Your task to perform on an android device: turn off notifications settings in the gmail app Image 0: 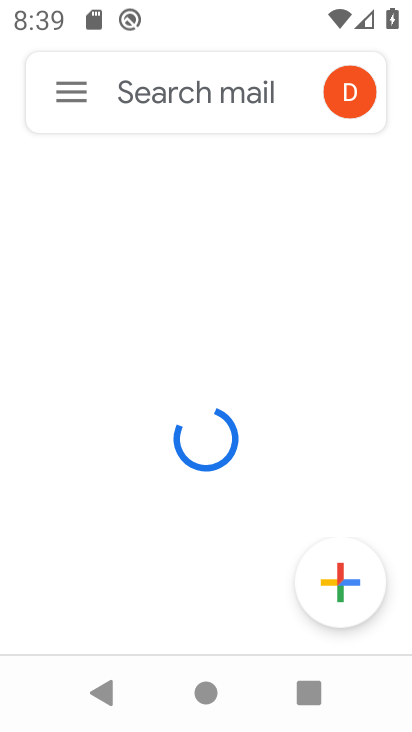
Step 0: press home button
Your task to perform on an android device: turn off notifications settings in the gmail app Image 1: 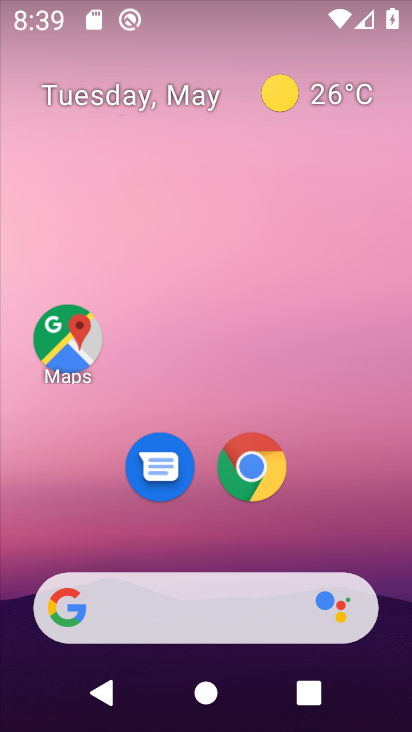
Step 1: drag from (393, 632) to (377, 220)
Your task to perform on an android device: turn off notifications settings in the gmail app Image 2: 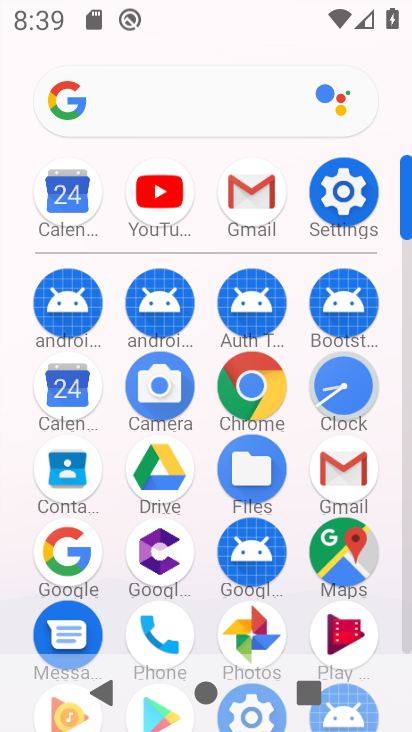
Step 2: click (334, 479)
Your task to perform on an android device: turn off notifications settings in the gmail app Image 3: 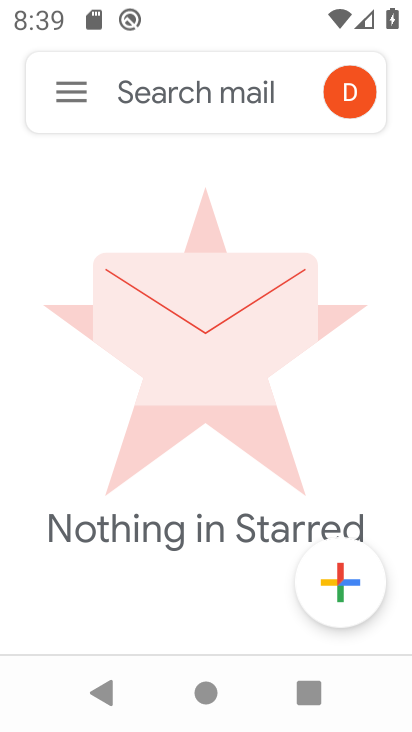
Step 3: click (57, 88)
Your task to perform on an android device: turn off notifications settings in the gmail app Image 4: 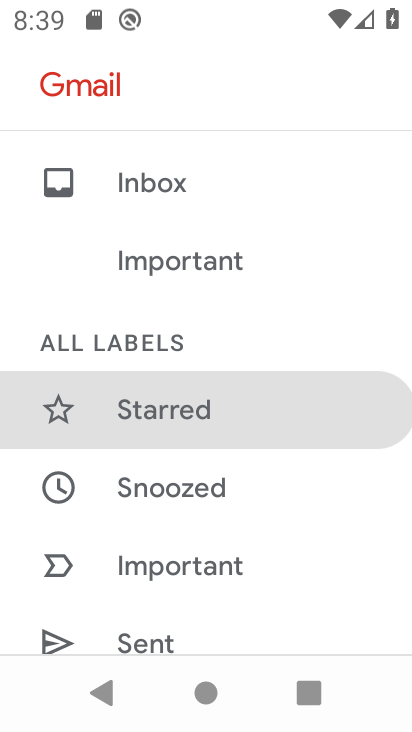
Step 4: drag from (289, 617) to (328, 331)
Your task to perform on an android device: turn off notifications settings in the gmail app Image 5: 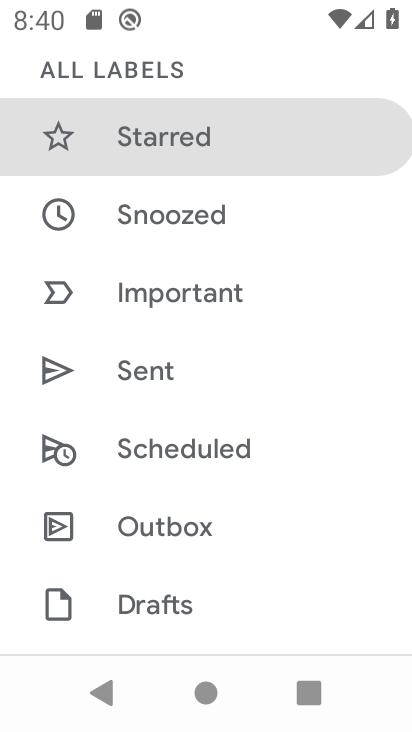
Step 5: drag from (389, 591) to (305, 248)
Your task to perform on an android device: turn off notifications settings in the gmail app Image 6: 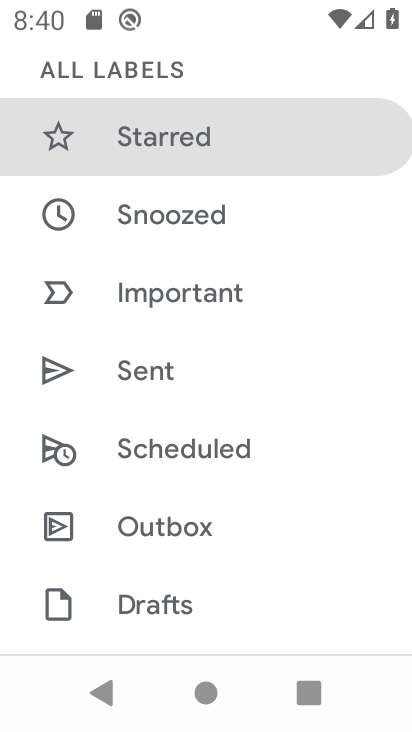
Step 6: drag from (274, 577) to (305, 261)
Your task to perform on an android device: turn off notifications settings in the gmail app Image 7: 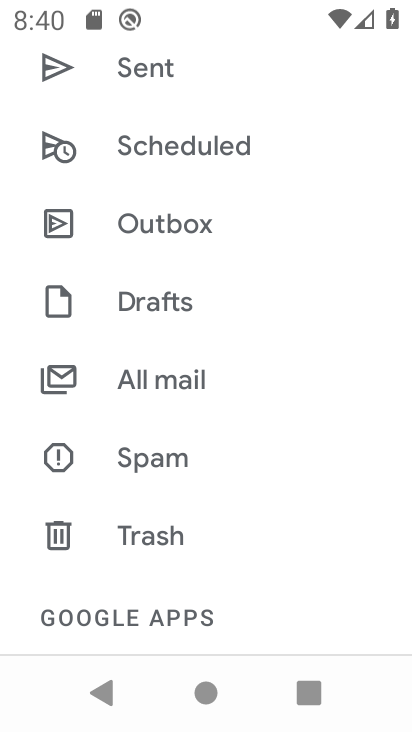
Step 7: drag from (276, 595) to (279, 327)
Your task to perform on an android device: turn off notifications settings in the gmail app Image 8: 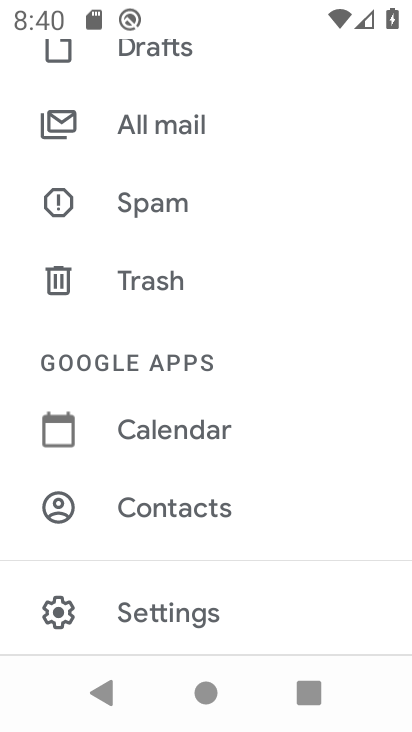
Step 8: drag from (306, 599) to (302, 257)
Your task to perform on an android device: turn off notifications settings in the gmail app Image 9: 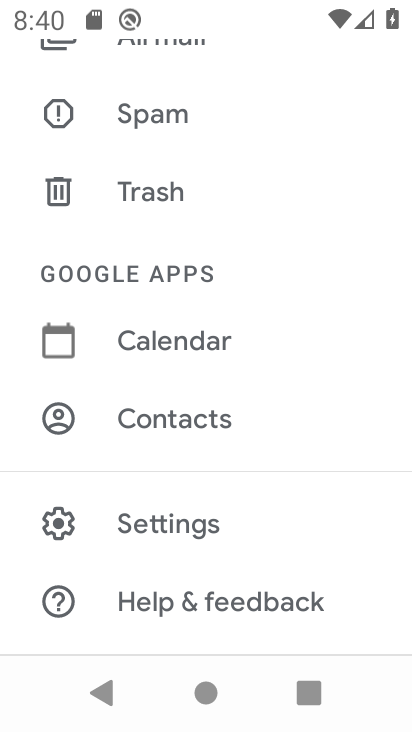
Step 9: drag from (322, 569) to (323, 267)
Your task to perform on an android device: turn off notifications settings in the gmail app Image 10: 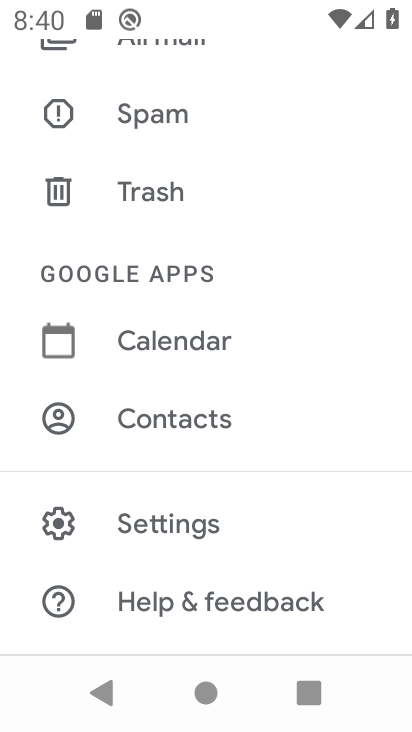
Step 10: click (179, 518)
Your task to perform on an android device: turn off notifications settings in the gmail app Image 11: 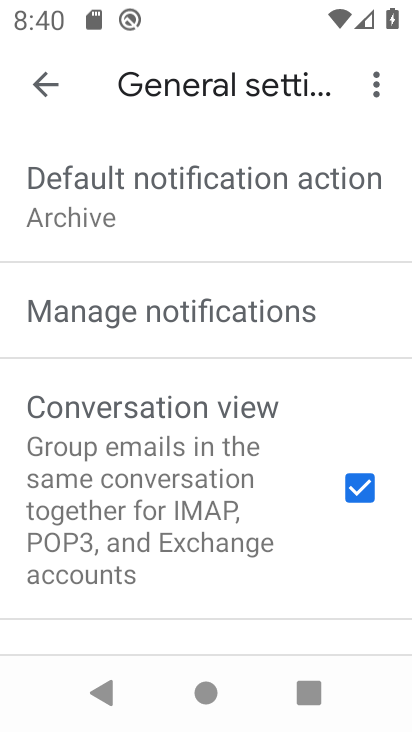
Step 11: click (227, 328)
Your task to perform on an android device: turn off notifications settings in the gmail app Image 12: 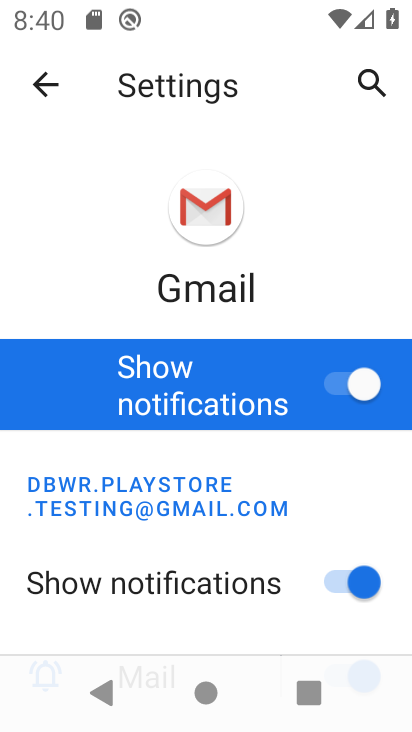
Step 12: click (339, 386)
Your task to perform on an android device: turn off notifications settings in the gmail app Image 13: 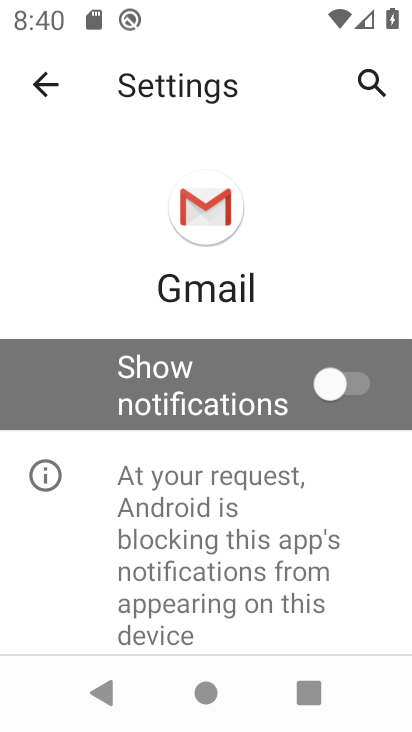
Step 13: task complete